Your task to perform on an android device: check data usage Image 0: 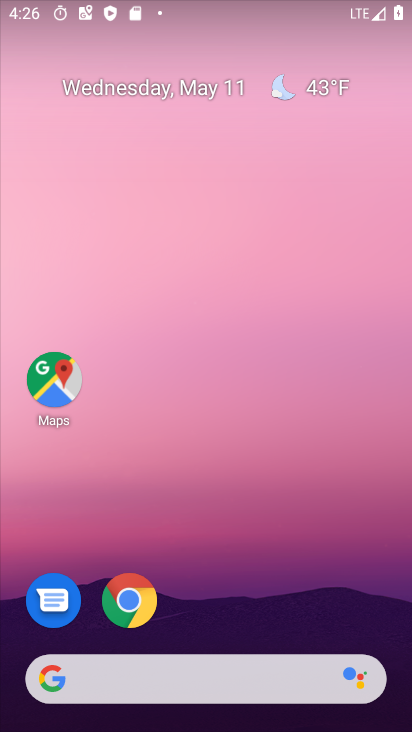
Step 0: drag from (345, 588) to (341, 32)
Your task to perform on an android device: check data usage Image 1: 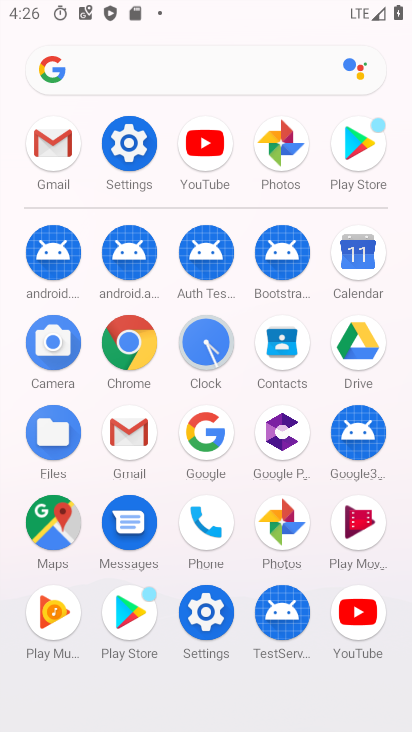
Step 1: click (116, 148)
Your task to perform on an android device: check data usage Image 2: 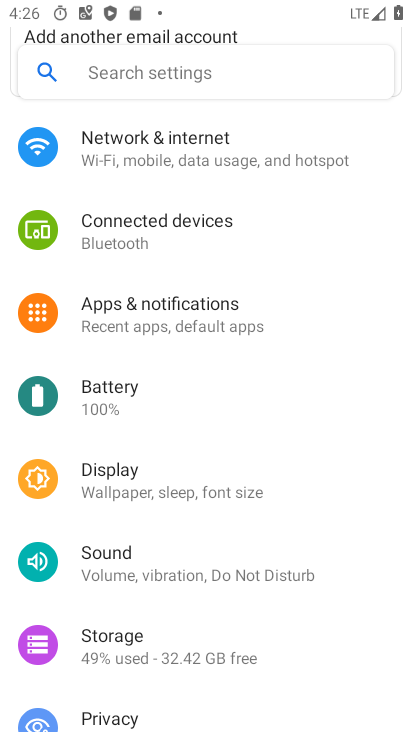
Step 2: click (169, 167)
Your task to perform on an android device: check data usage Image 3: 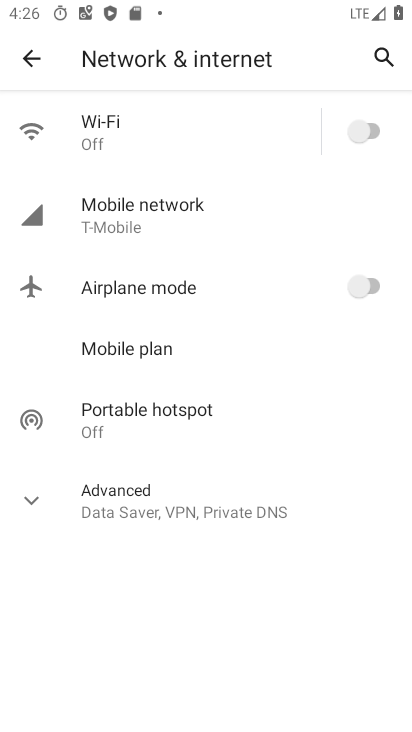
Step 3: click (99, 217)
Your task to perform on an android device: check data usage Image 4: 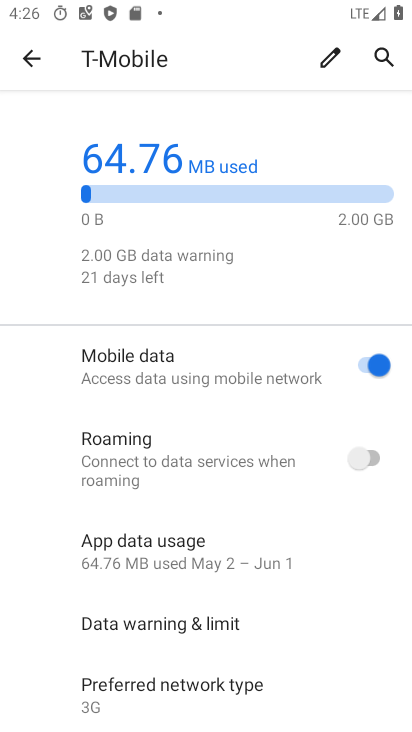
Step 4: click (121, 555)
Your task to perform on an android device: check data usage Image 5: 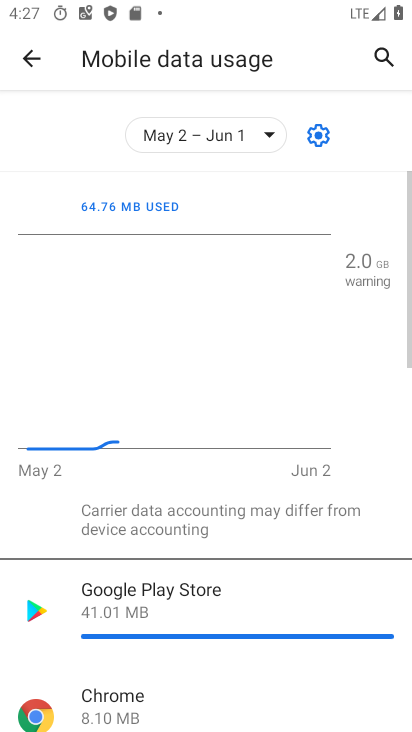
Step 5: task complete